Your task to perform on an android device: Search for vegetarian restaurants on Maps Image 0: 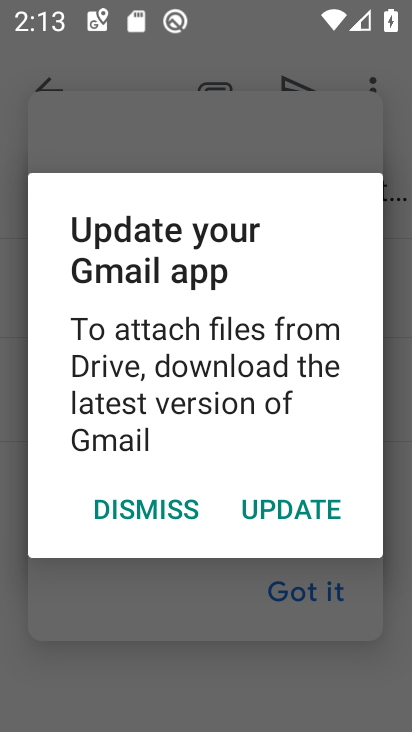
Step 0: press home button
Your task to perform on an android device: Search for vegetarian restaurants on Maps Image 1: 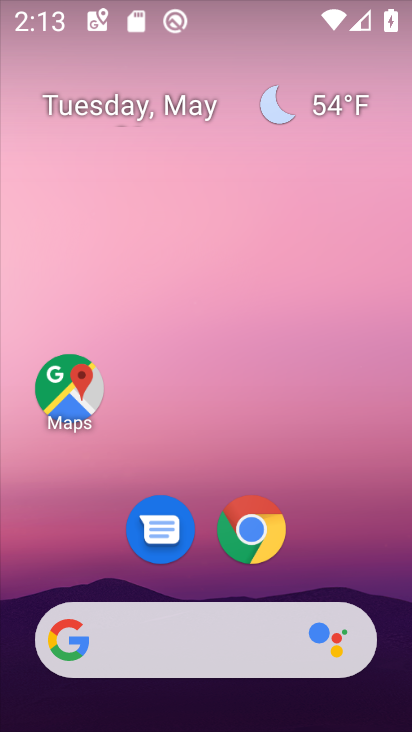
Step 1: click (58, 367)
Your task to perform on an android device: Search for vegetarian restaurants on Maps Image 2: 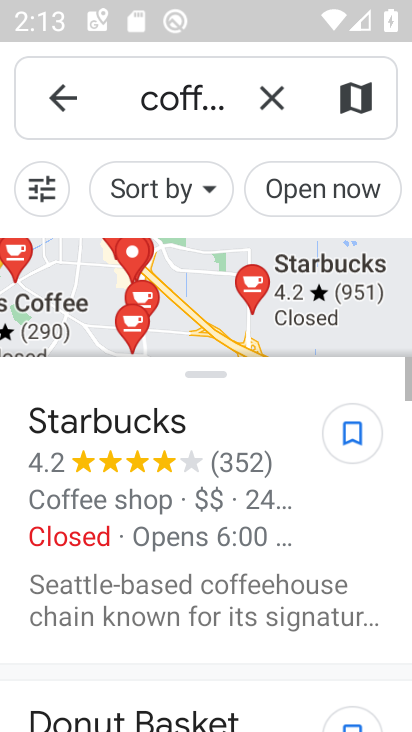
Step 2: click (273, 95)
Your task to perform on an android device: Search for vegetarian restaurants on Maps Image 3: 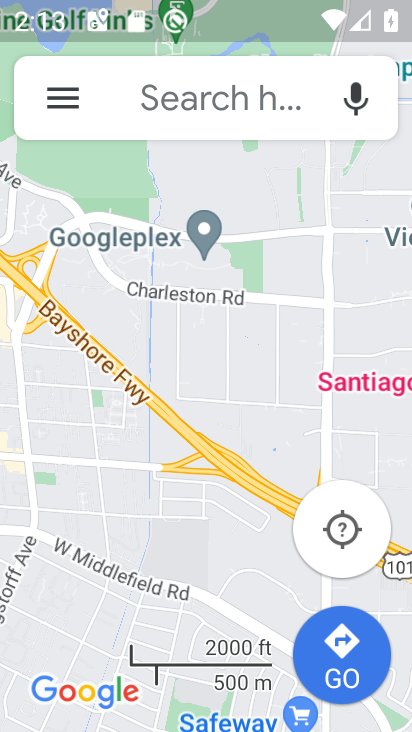
Step 3: click (178, 96)
Your task to perform on an android device: Search for vegetarian restaurants on Maps Image 4: 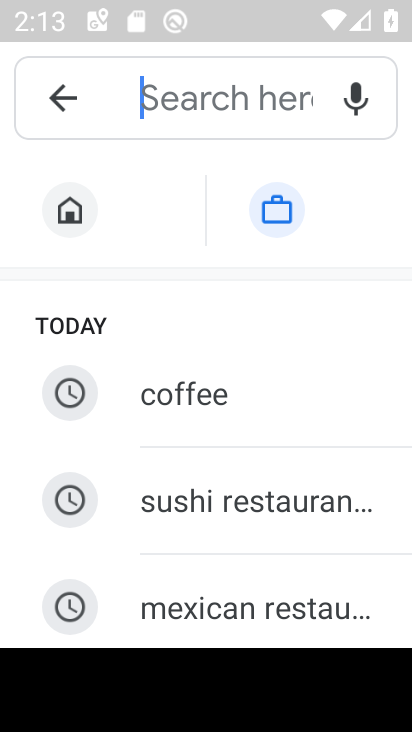
Step 4: drag from (217, 591) to (220, 420)
Your task to perform on an android device: Search for vegetarian restaurants on Maps Image 5: 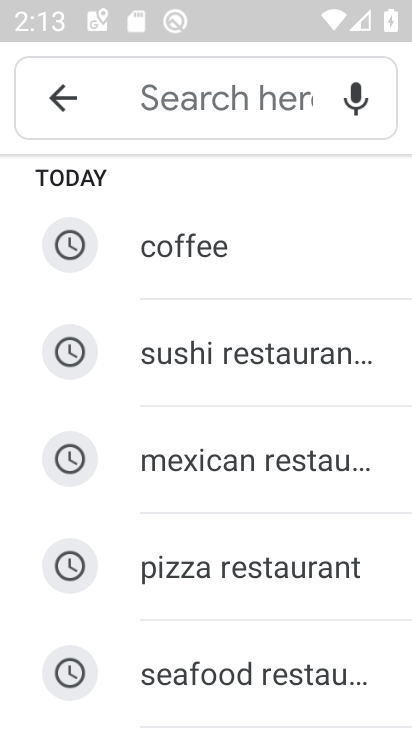
Step 5: drag from (182, 609) to (230, 343)
Your task to perform on an android device: Search for vegetarian restaurants on Maps Image 6: 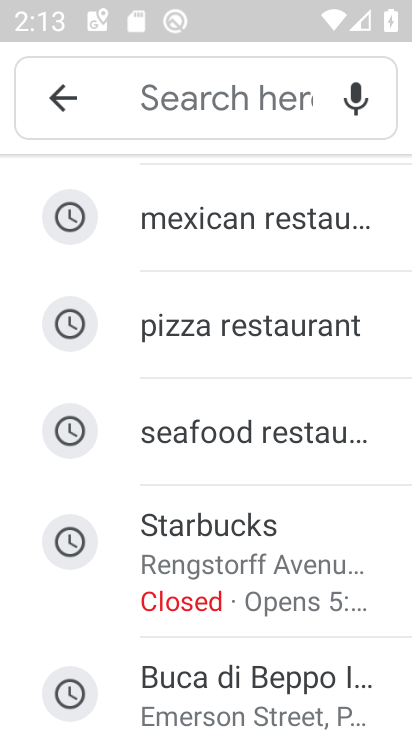
Step 6: drag from (205, 659) to (299, 290)
Your task to perform on an android device: Search for vegetarian restaurants on Maps Image 7: 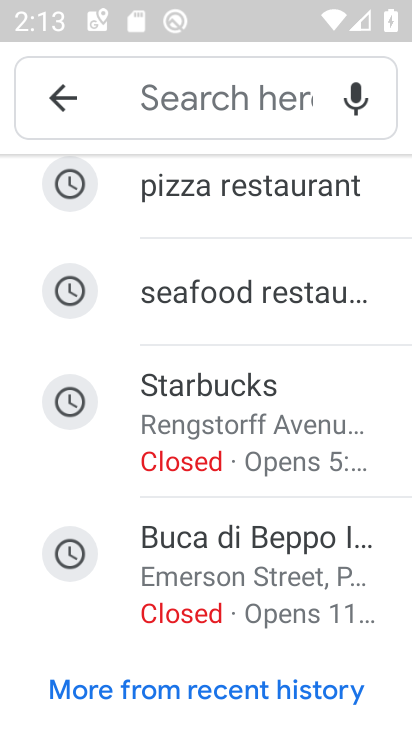
Step 7: click (244, 101)
Your task to perform on an android device: Search for vegetarian restaurants on Maps Image 8: 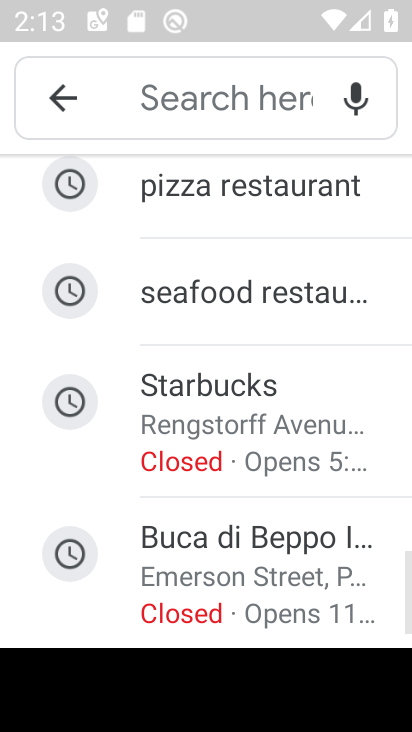
Step 8: type " vegetarian restaurants"
Your task to perform on an android device: Search for vegetarian restaurants on Maps Image 9: 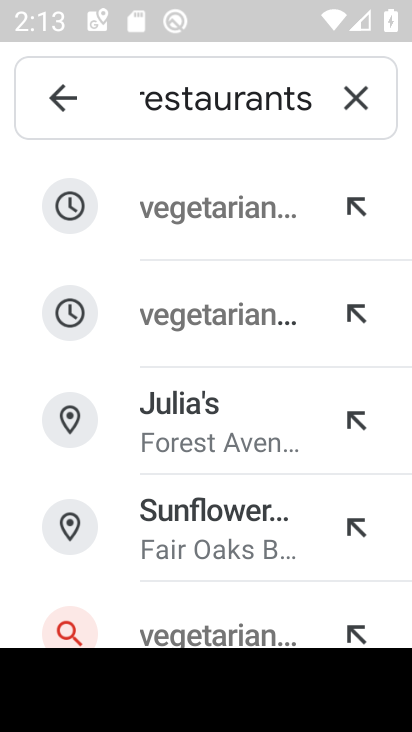
Step 9: click (241, 213)
Your task to perform on an android device: Search for vegetarian restaurants on Maps Image 10: 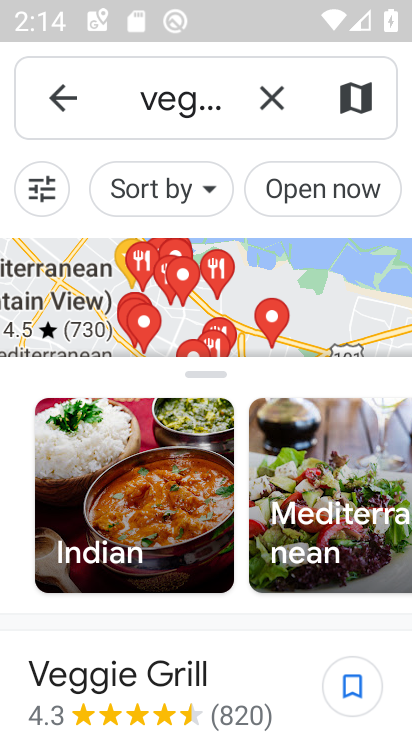
Step 10: task complete